Your task to perform on an android device: change notifications settings Image 0: 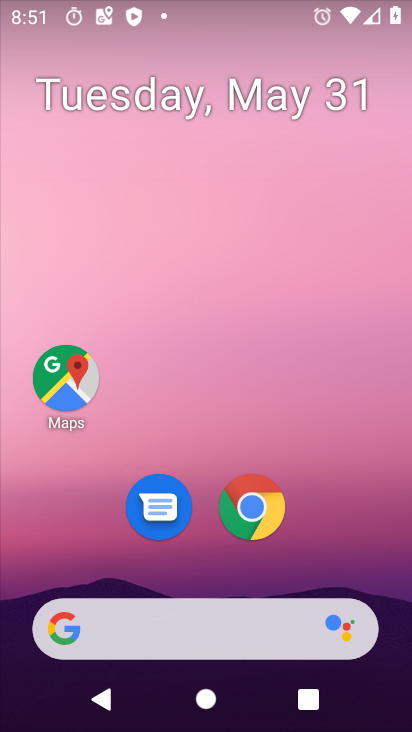
Step 0: drag from (348, 574) to (259, 0)
Your task to perform on an android device: change notifications settings Image 1: 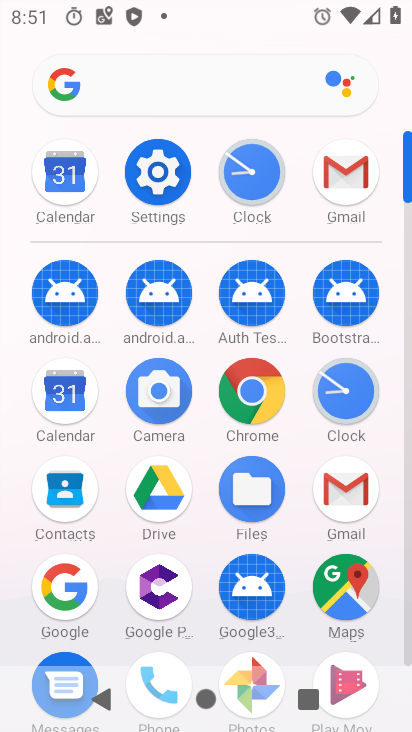
Step 1: click (163, 160)
Your task to perform on an android device: change notifications settings Image 2: 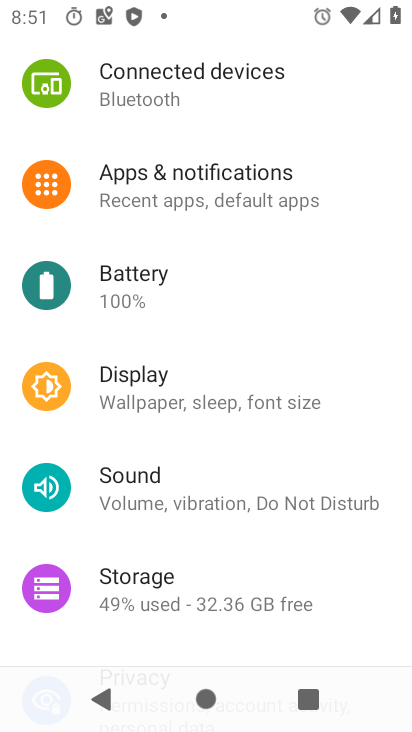
Step 2: click (160, 185)
Your task to perform on an android device: change notifications settings Image 3: 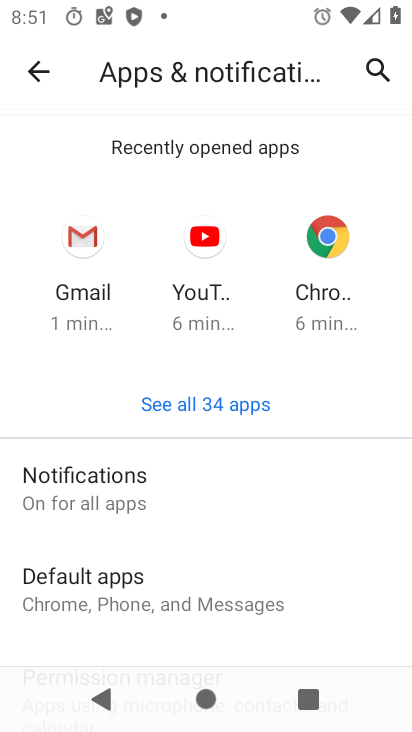
Step 3: click (112, 470)
Your task to perform on an android device: change notifications settings Image 4: 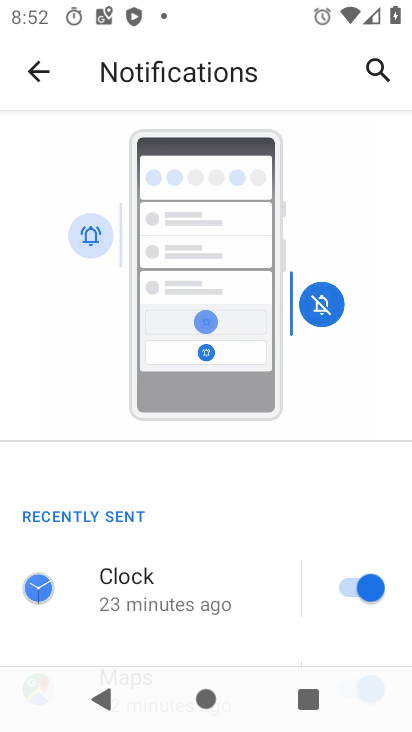
Step 4: drag from (123, 465) to (142, 345)
Your task to perform on an android device: change notifications settings Image 5: 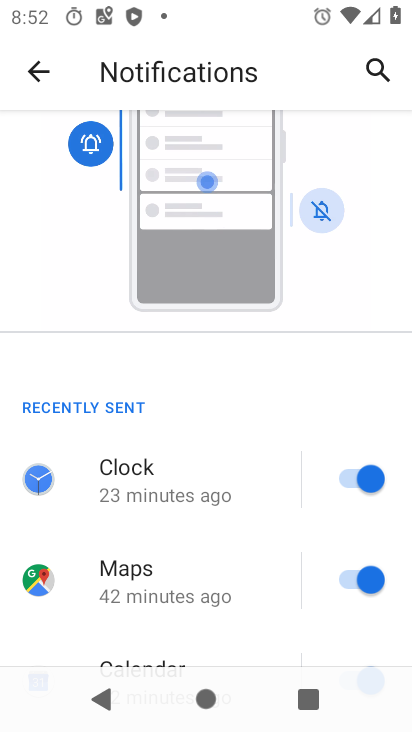
Step 5: drag from (206, 497) to (242, 111)
Your task to perform on an android device: change notifications settings Image 6: 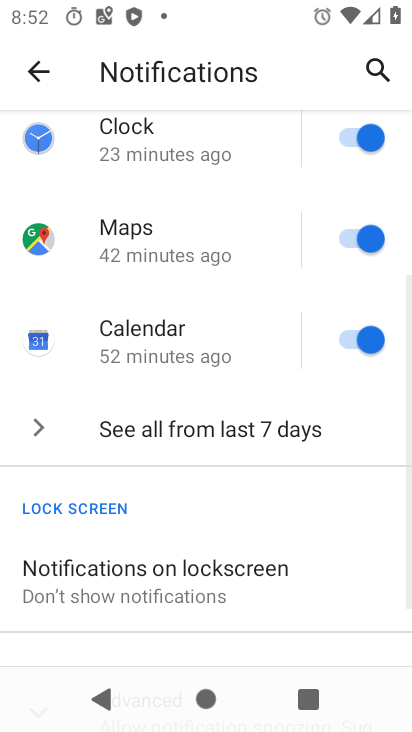
Step 6: drag from (191, 558) to (225, 333)
Your task to perform on an android device: change notifications settings Image 7: 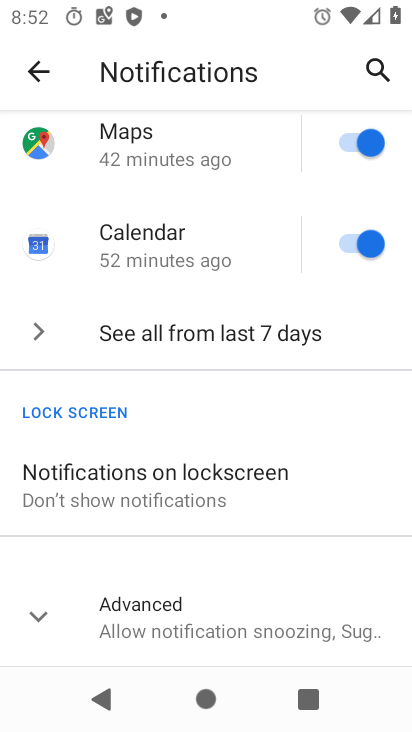
Step 7: click (222, 330)
Your task to perform on an android device: change notifications settings Image 8: 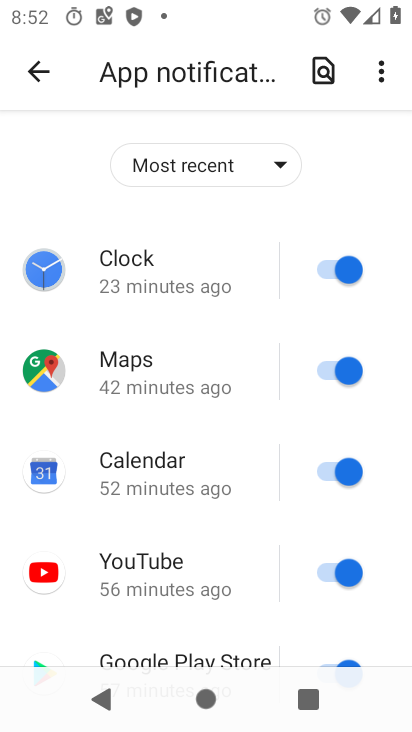
Step 8: click (279, 150)
Your task to perform on an android device: change notifications settings Image 9: 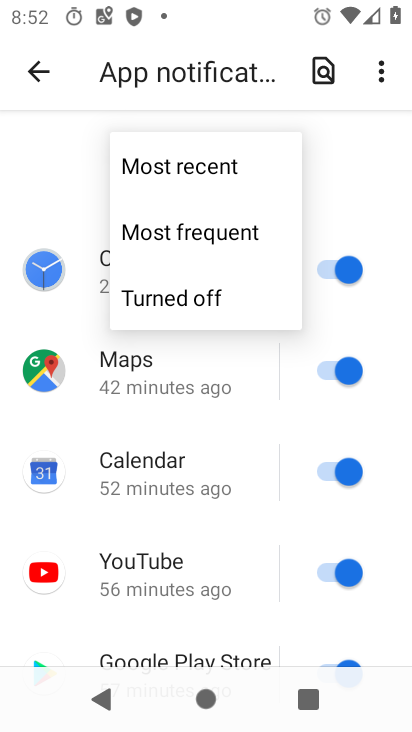
Step 9: click (181, 239)
Your task to perform on an android device: change notifications settings Image 10: 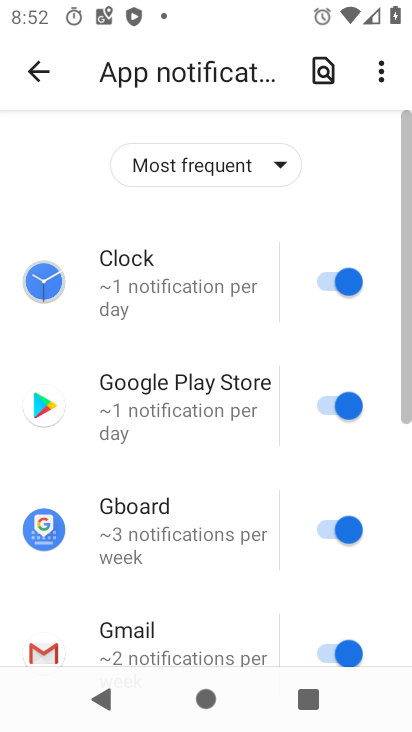
Step 10: task complete